Your task to perform on an android device: see sites visited before in the chrome app Image 0: 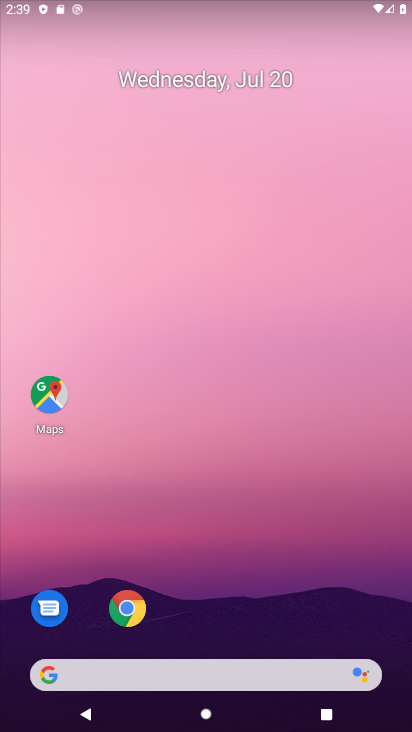
Step 0: drag from (230, 572) to (179, 75)
Your task to perform on an android device: see sites visited before in the chrome app Image 1: 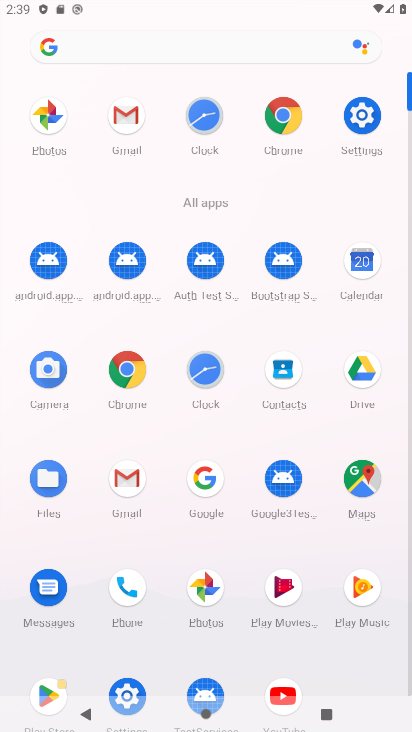
Step 1: click (278, 110)
Your task to perform on an android device: see sites visited before in the chrome app Image 2: 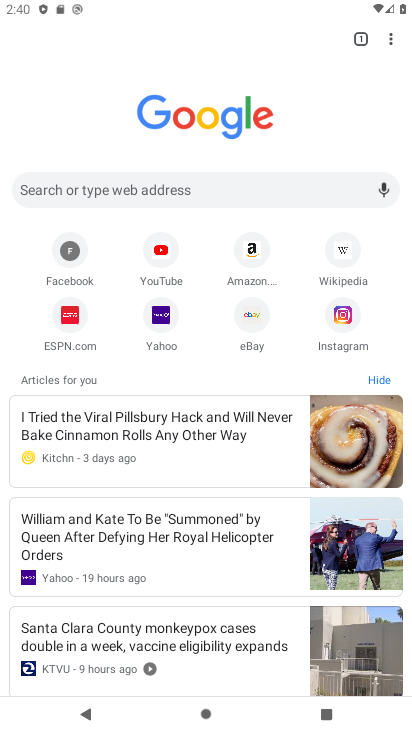
Step 2: task complete